Your task to perform on an android device: Go to CNN.com Image 0: 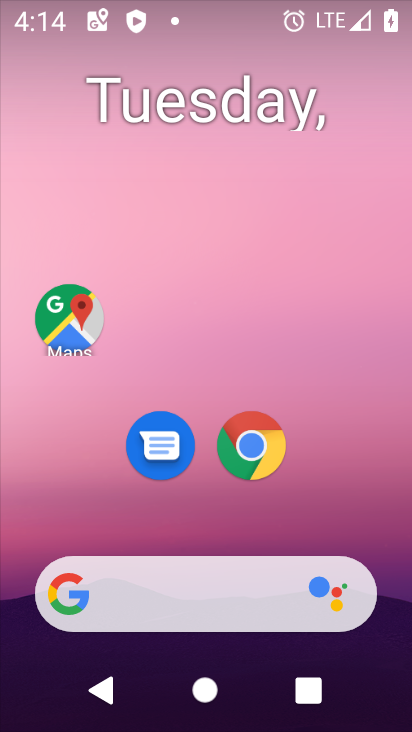
Step 0: click (264, 459)
Your task to perform on an android device: Go to CNN.com Image 1: 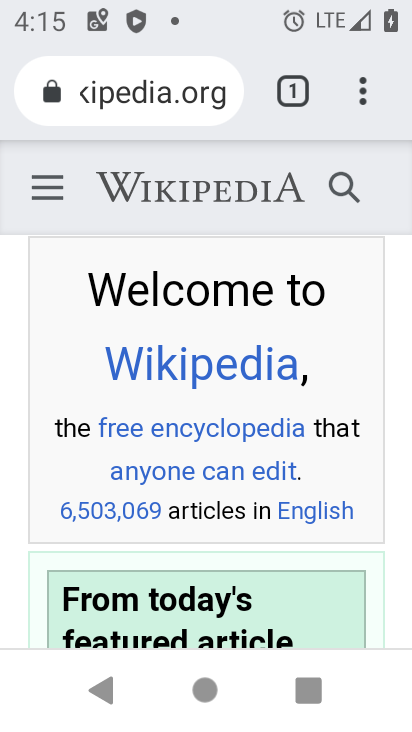
Step 1: click (168, 91)
Your task to perform on an android device: Go to CNN.com Image 2: 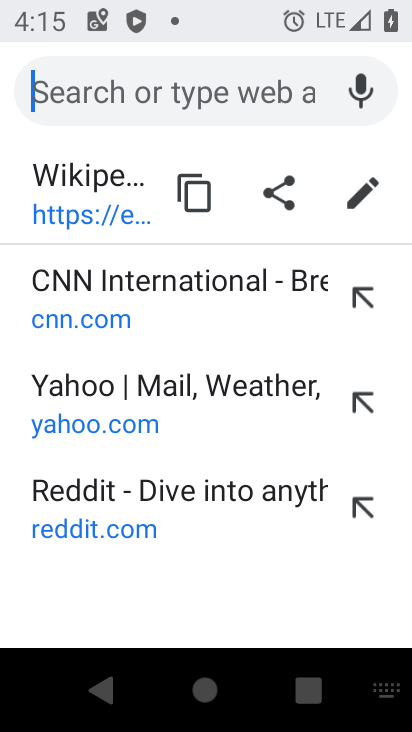
Step 2: click (44, 296)
Your task to perform on an android device: Go to CNN.com Image 3: 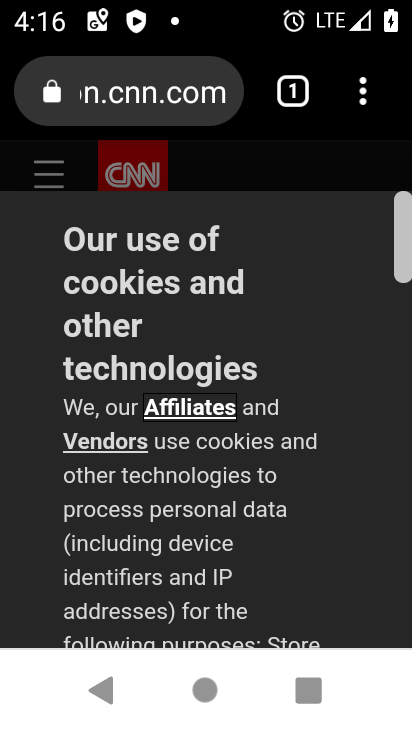
Step 3: task complete